Your task to perform on an android device: toggle airplane mode Image 0: 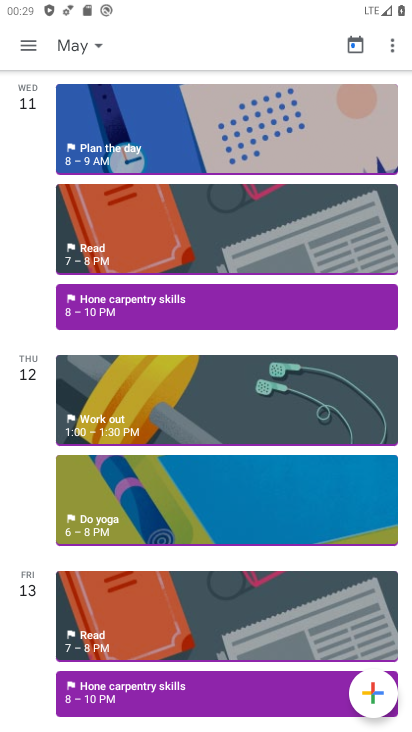
Step 0: press home button
Your task to perform on an android device: toggle airplane mode Image 1: 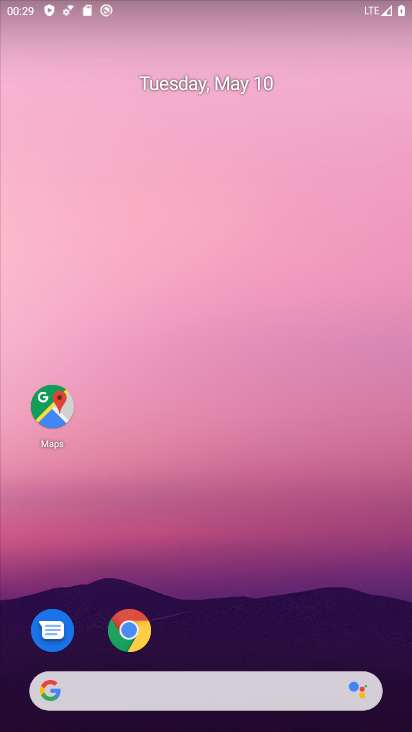
Step 1: drag from (218, 721) to (218, 93)
Your task to perform on an android device: toggle airplane mode Image 2: 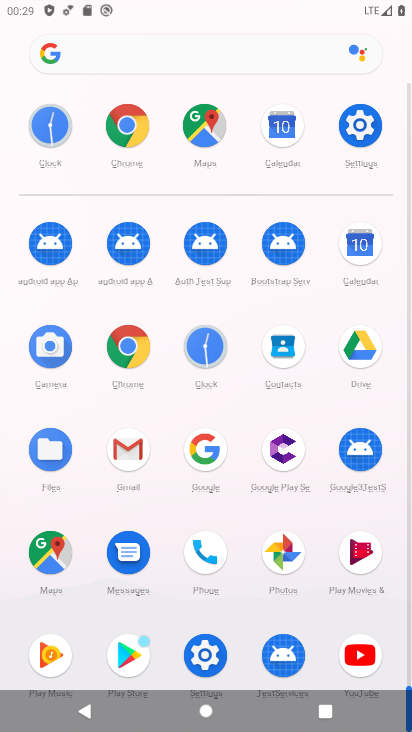
Step 2: click (366, 122)
Your task to perform on an android device: toggle airplane mode Image 3: 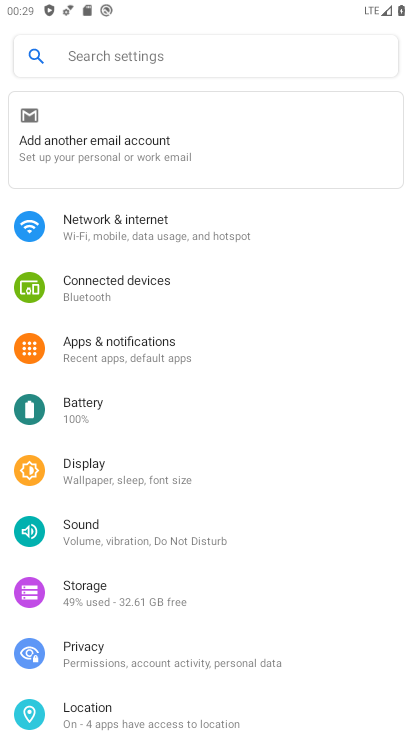
Step 3: click (123, 224)
Your task to perform on an android device: toggle airplane mode Image 4: 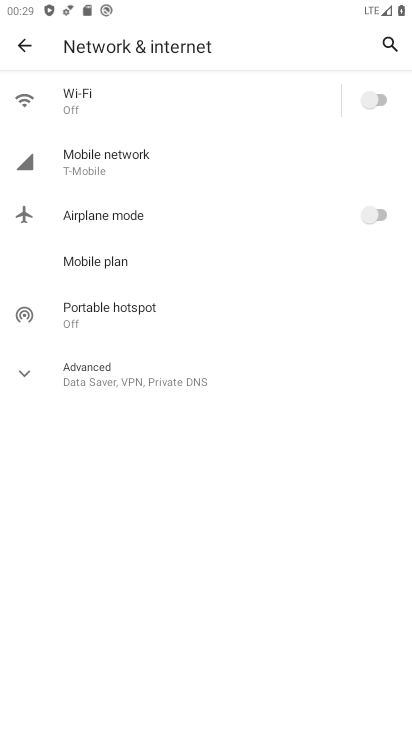
Step 4: click (383, 215)
Your task to perform on an android device: toggle airplane mode Image 5: 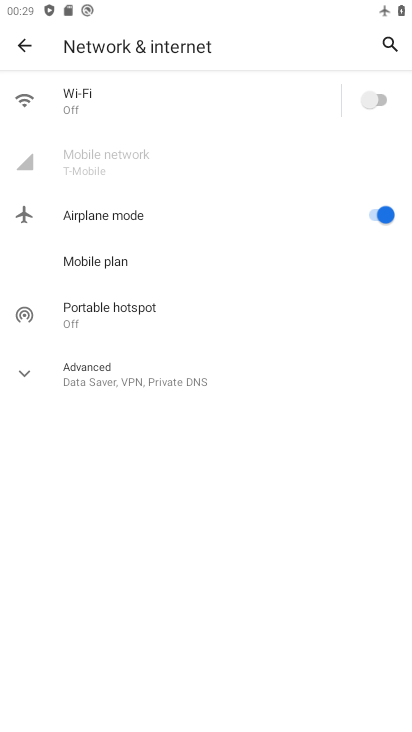
Step 5: task complete